Your task to perform on an android device: snooze an email in the gmail app Image 0: 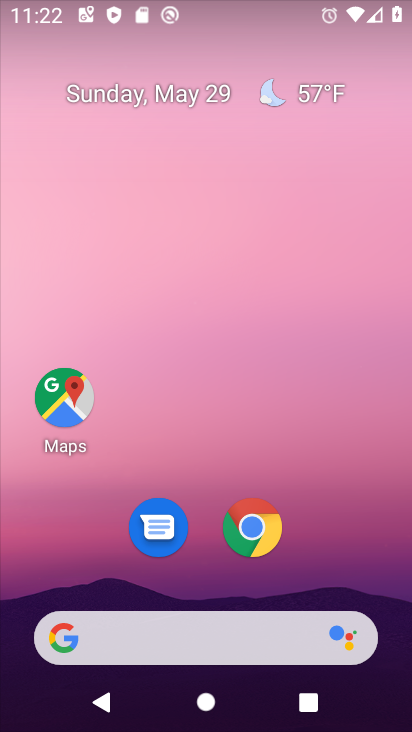
Step 0: drag from (214, 593) to (233, 65)
Your task to perform on an android device: snooze an email in the gmail app Image 1: 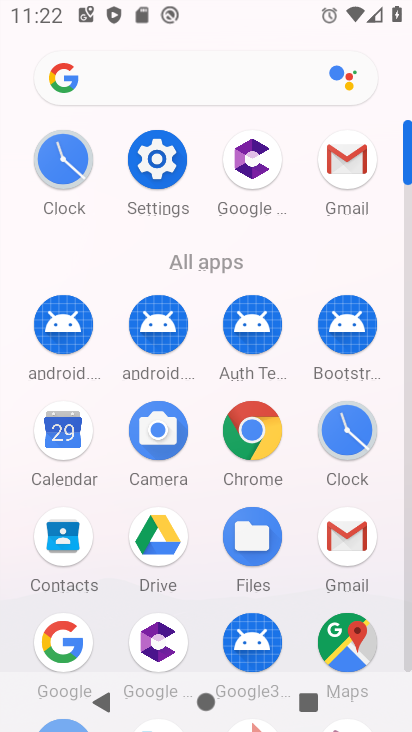
Step 1: click (338, 150)
Your task to perform on an android device: snooze an email in the gmail app Image 2: 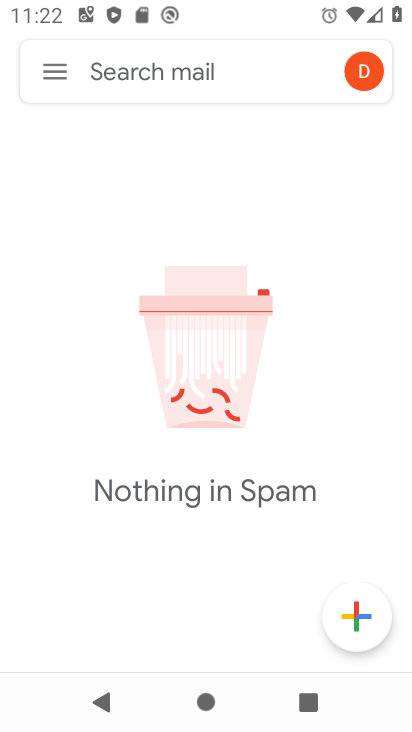
Step 2: click (44, 73)
Your task to perform on an android device: snooze an email in the gmail app Image 3: 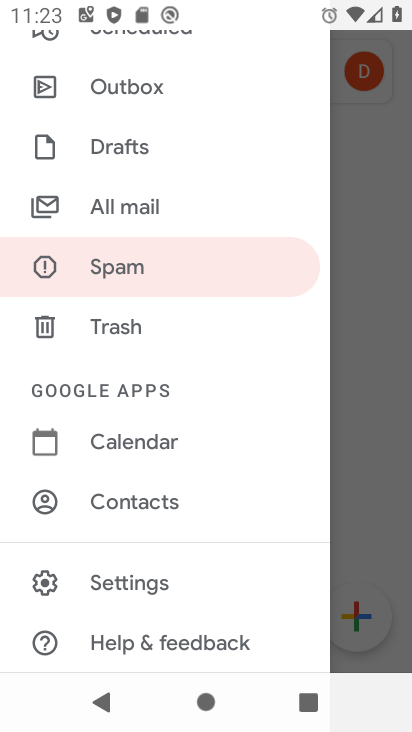
Step 3: click (97, 216)
Your task to perform on an android device: snooze an email in the gmail app Image 4: 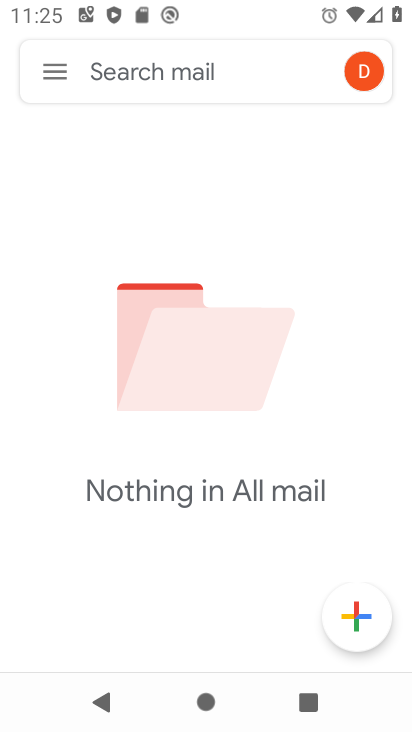
Step 4: task complete